Your task to perform on an android device: Clear the shopping cart on target.com. Search for "dell xps" on target.com, select the first entry, add it to the cart, then select checkout. Image 0: 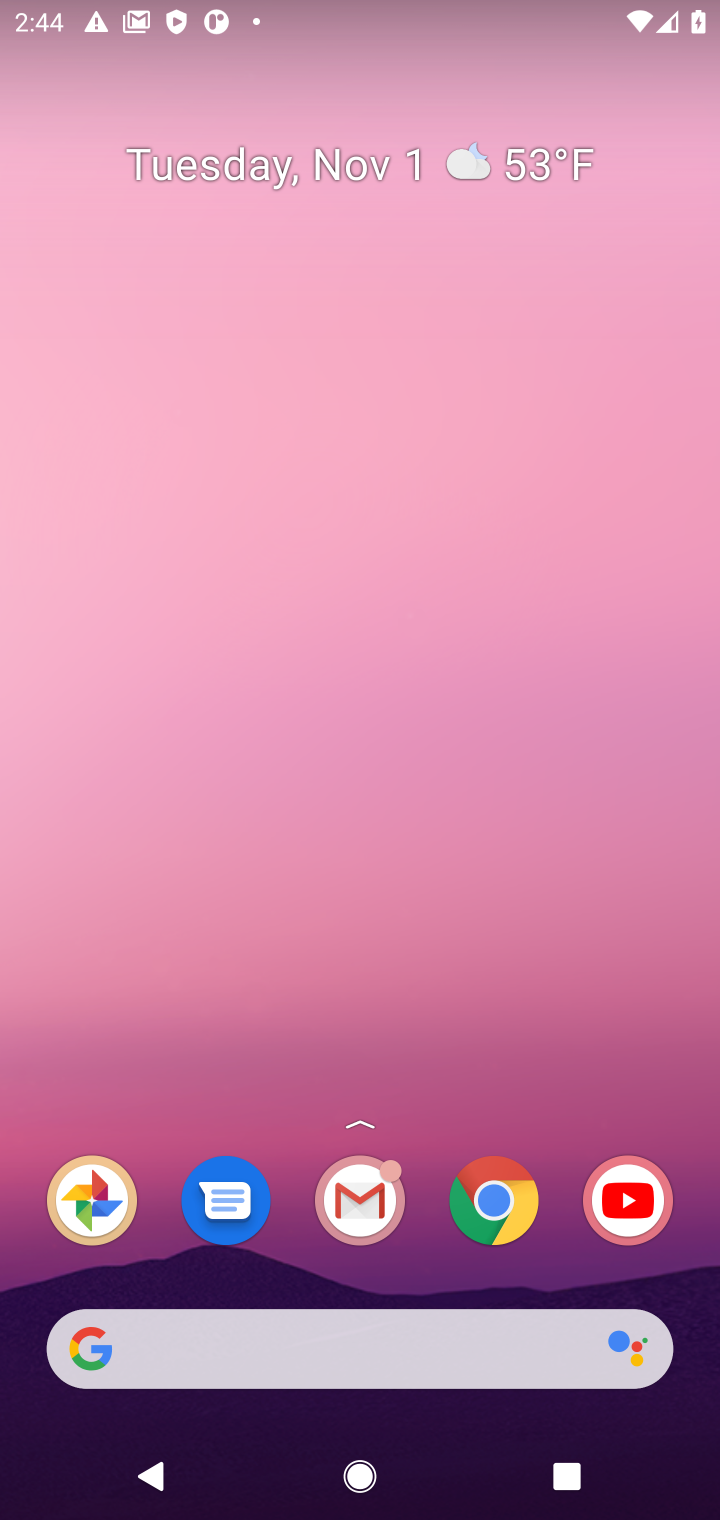
Step 0: click (92, 1339)
Your task to perform on an android device: Clear the shopping cart on target.com. Search for "dell xps" on target.com, select the first entry, add it to the cart, then select checkout. Image 1: 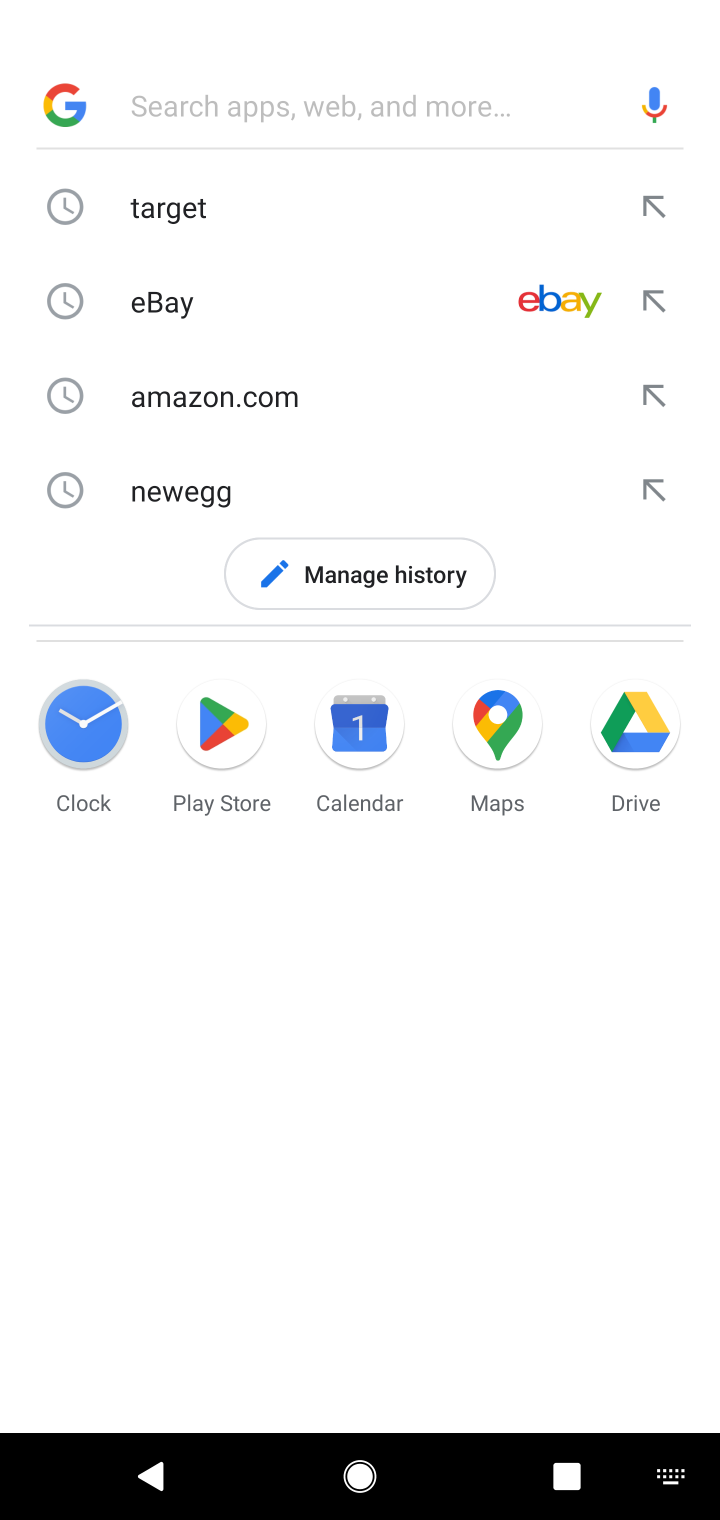
Step 1: press home button
Your task to perform on an android device: Clear the shopping cart on target.com. Search for "dell xps" on target.com, select the first entry, add it to the cart, then select checkout. Image 2: 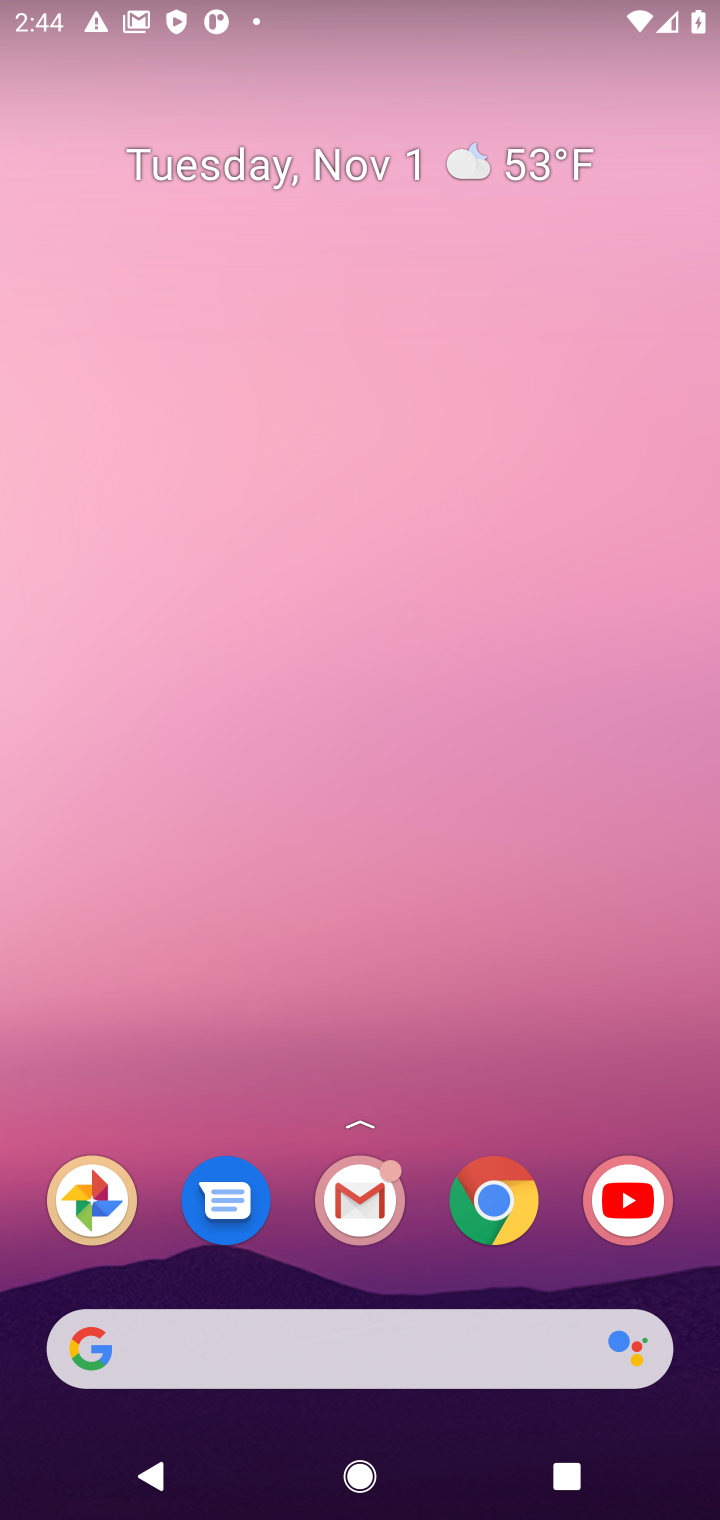
Step 2: click (86, 1349)
Your task to perform on an android device: Clear the shopping cart on target.com. Search for "dell xps" on target.com, select the first entry, add it to the cart, then select checkout. Image 3: 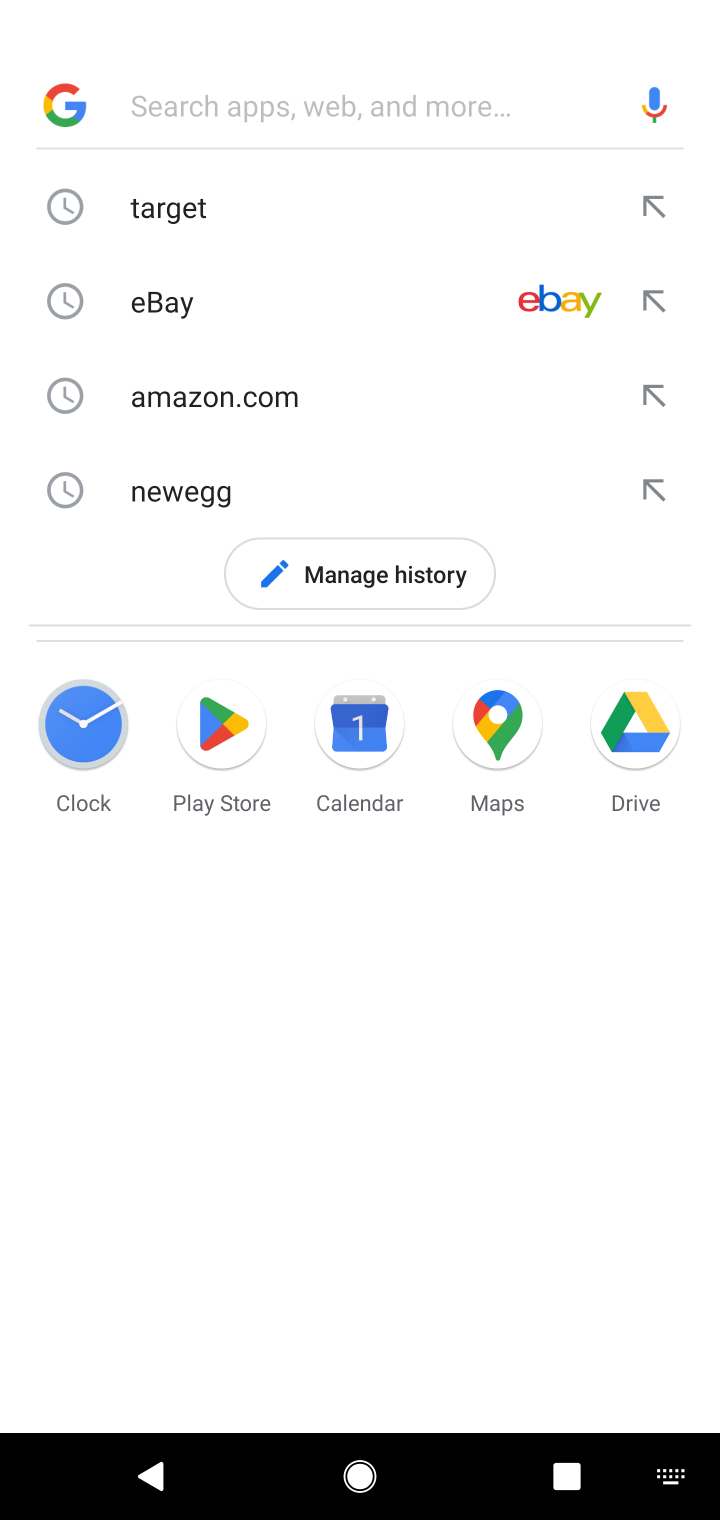
Step 3: click (211, 202)
Your task to perform on an android device: Clear the shopping cart on target.com. Search for "dell xps" on target.com, select the first entry, add it to the cart, then select checkout. Image 4: 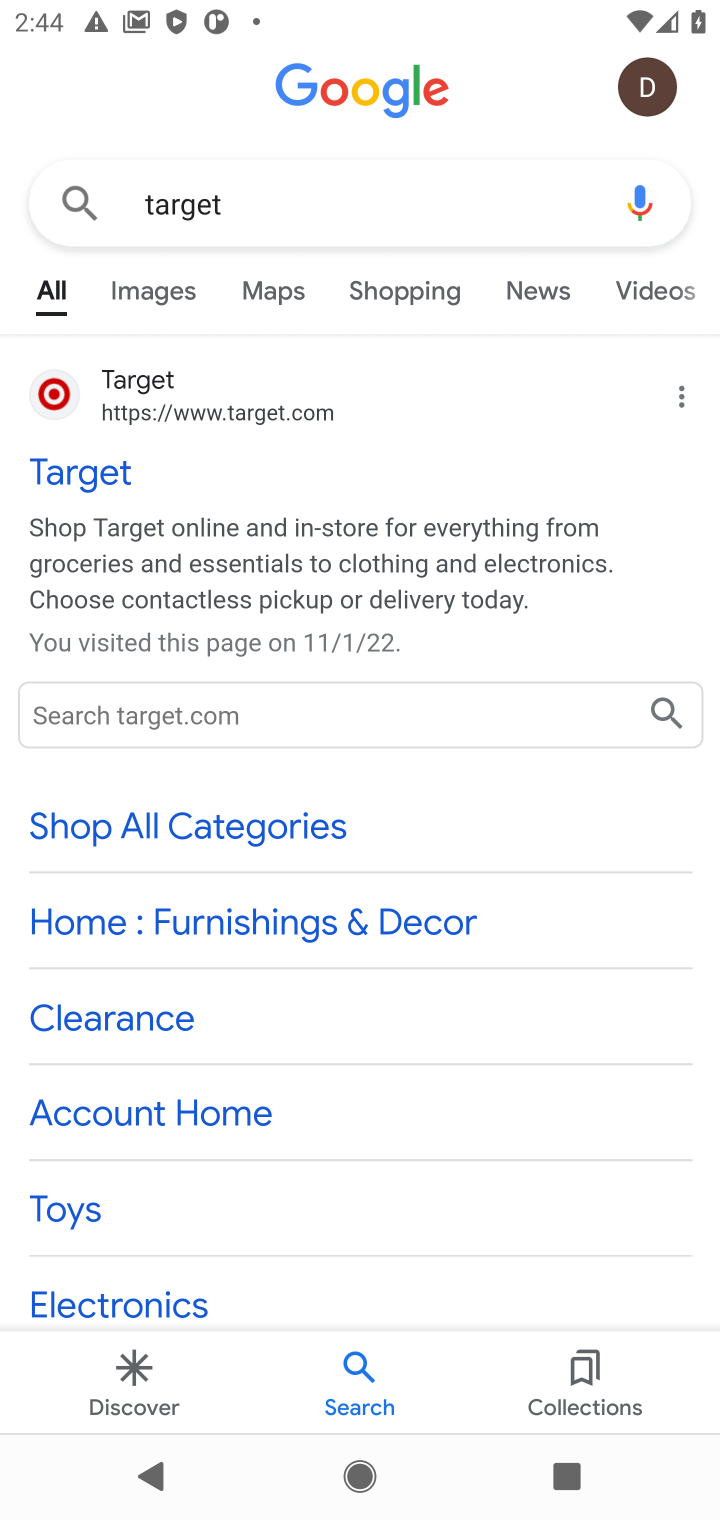
Step 4: click (56, 477)
Your task to perform on an android device: Clear the shopping cart on target.com. Search for "dell xps" on target.com, select the first entry, add it to the cart, then select checkout. Image 5: 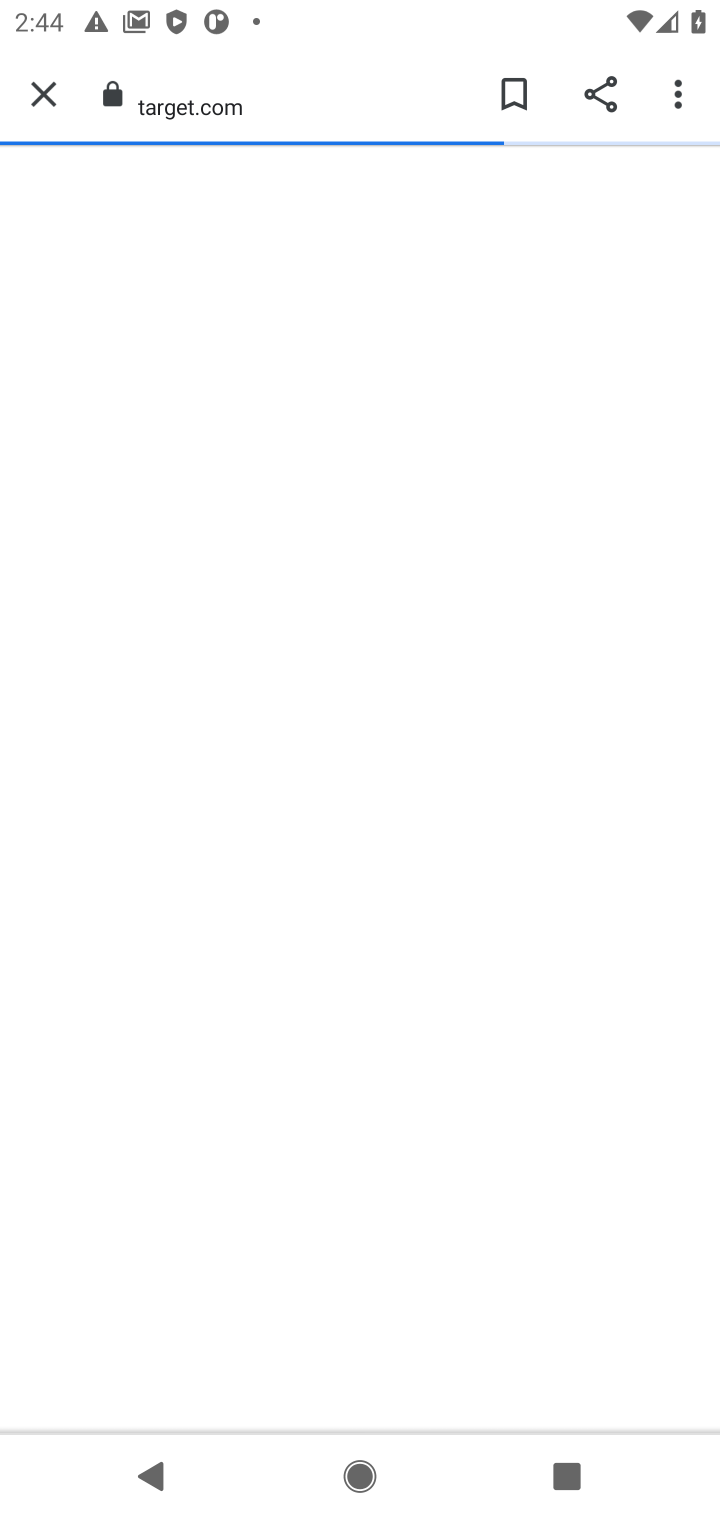
Step 5: click (337, 1040)
Your task to perform on an android device: Clear the shopping cart on target.com. Search for "dell xps" on target.com, select the first entry, add it to the cart, then select checkout. Image 6: 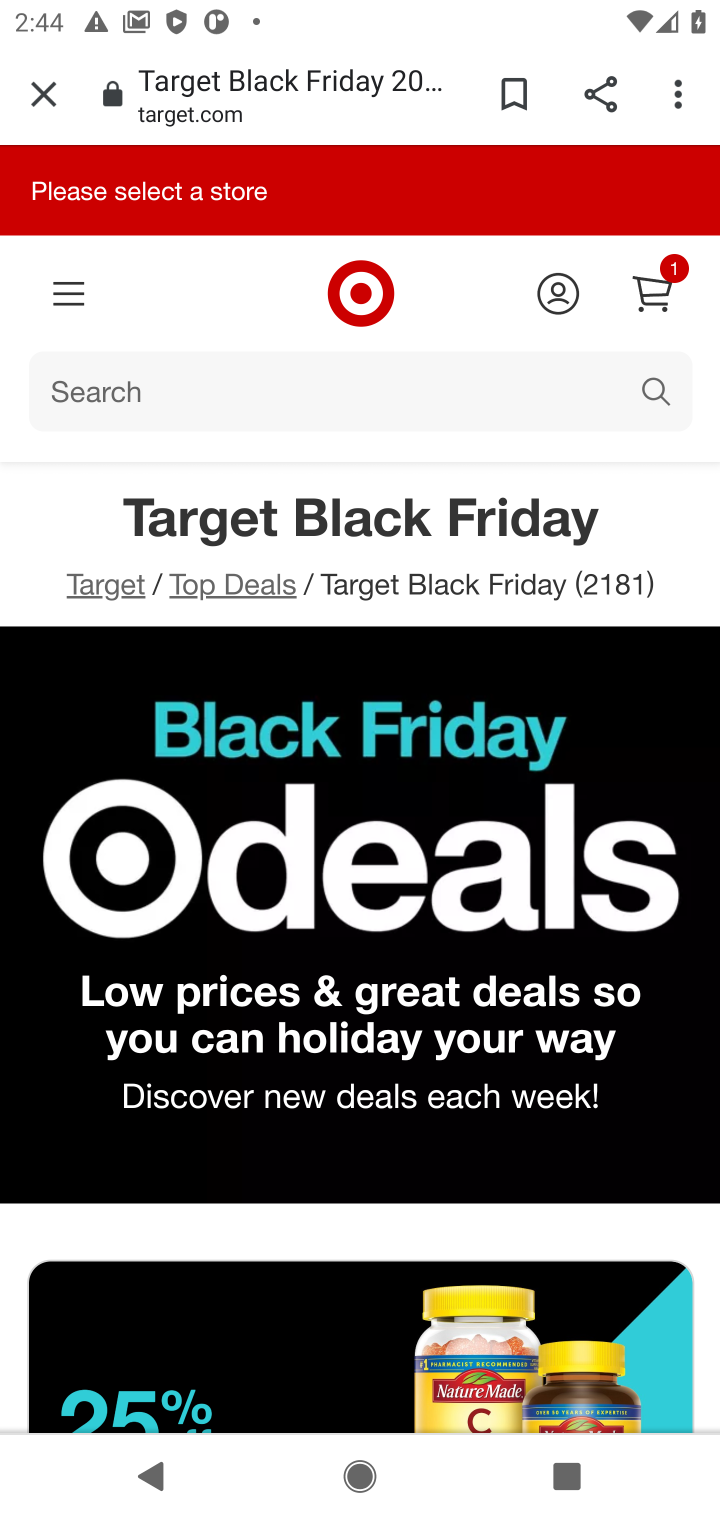
Step 6: click (666, 285)
Your task to perform on an android device: Clear the shopping cart on target.com. Search for "dell xps" on target.com, select the first entry, add it to the cart, then select checkout. Image 7: 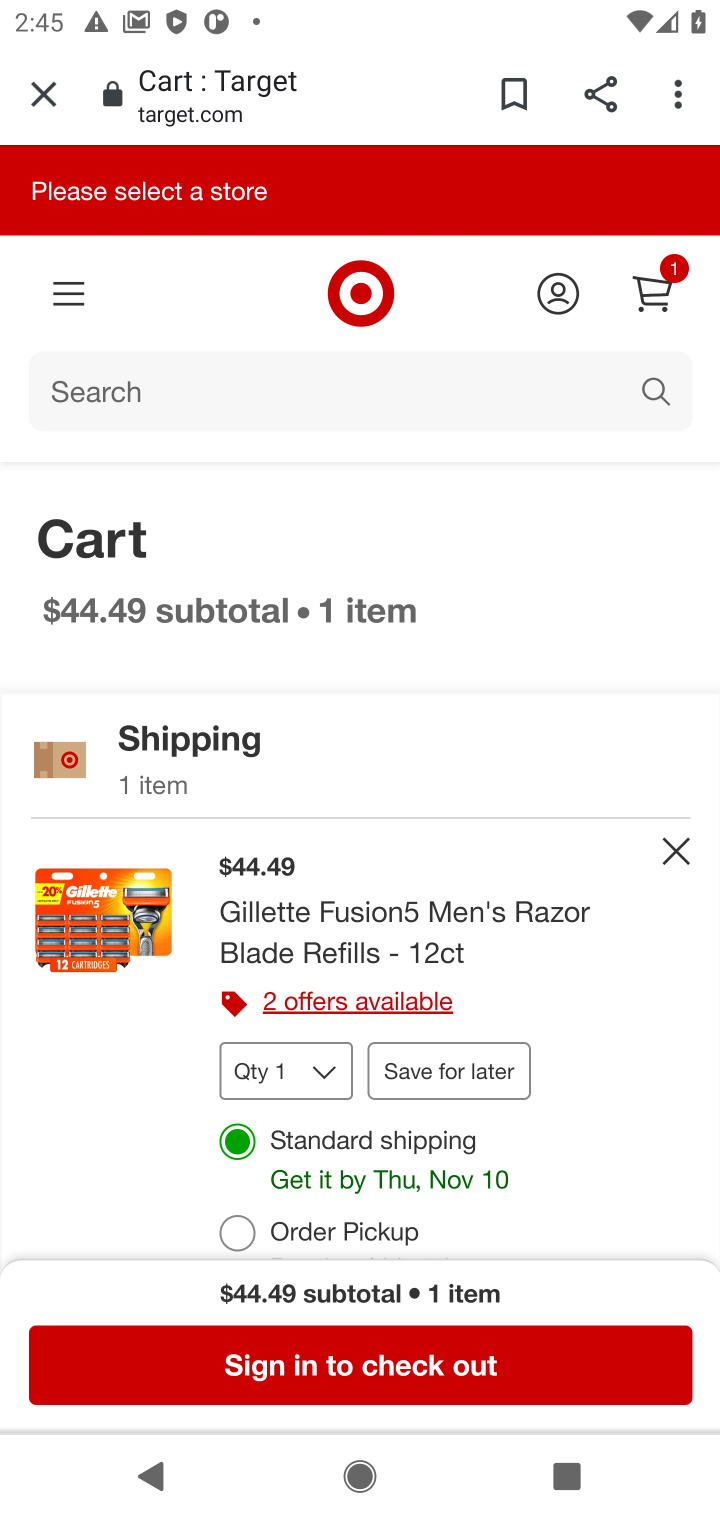
Step 7: drag from (447, 1115) to (498, 530)
Your task to perform on an android device: Clear the shopping cart on target.com. Search for "dell xps" on target.com, select the first entry, add it to the cart, then select checkout. Image 8: 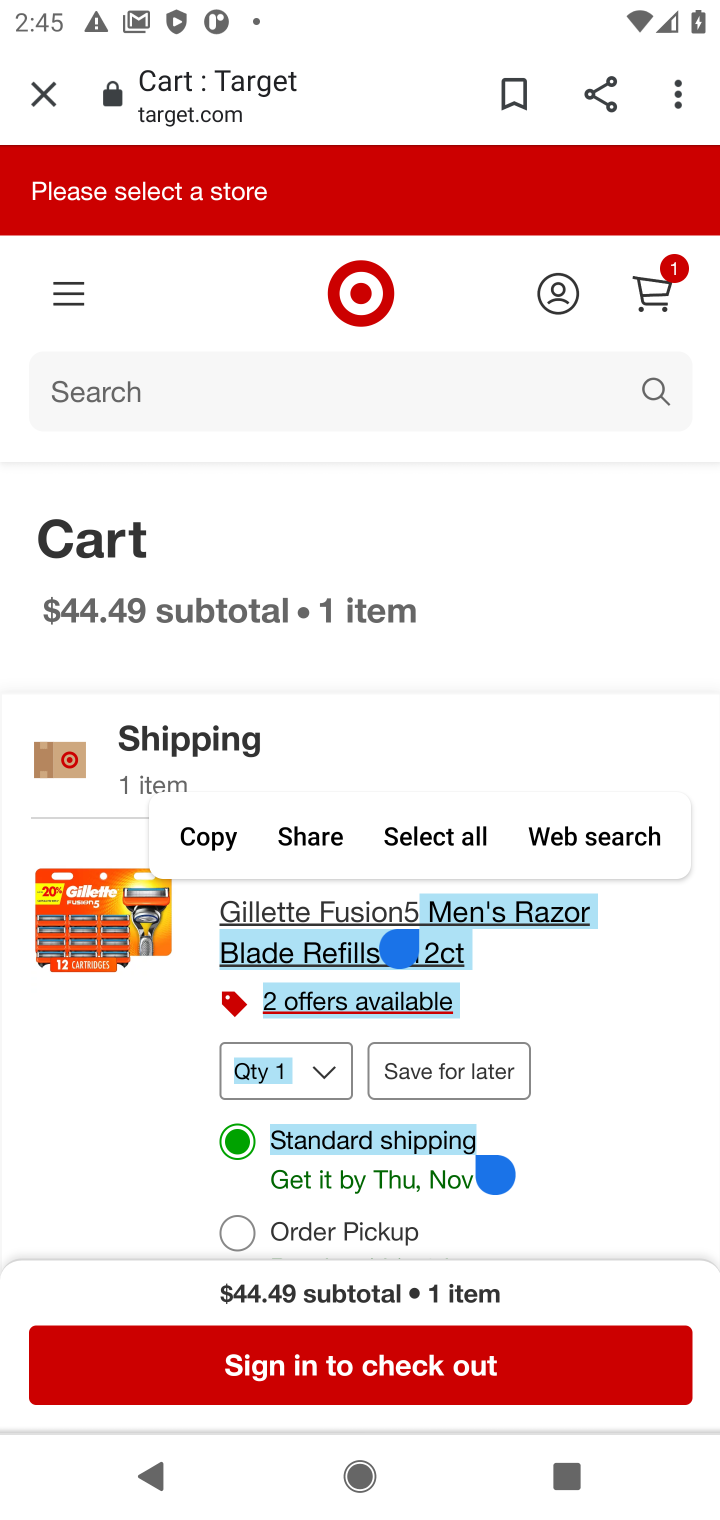
Step 8: click (644, 641)
Your task to perform on an android device: Clear the shopping cart on target.com. Search for "dell xps" on target.com, select the first entry, add it to the cart, then select checkout. Image 9: 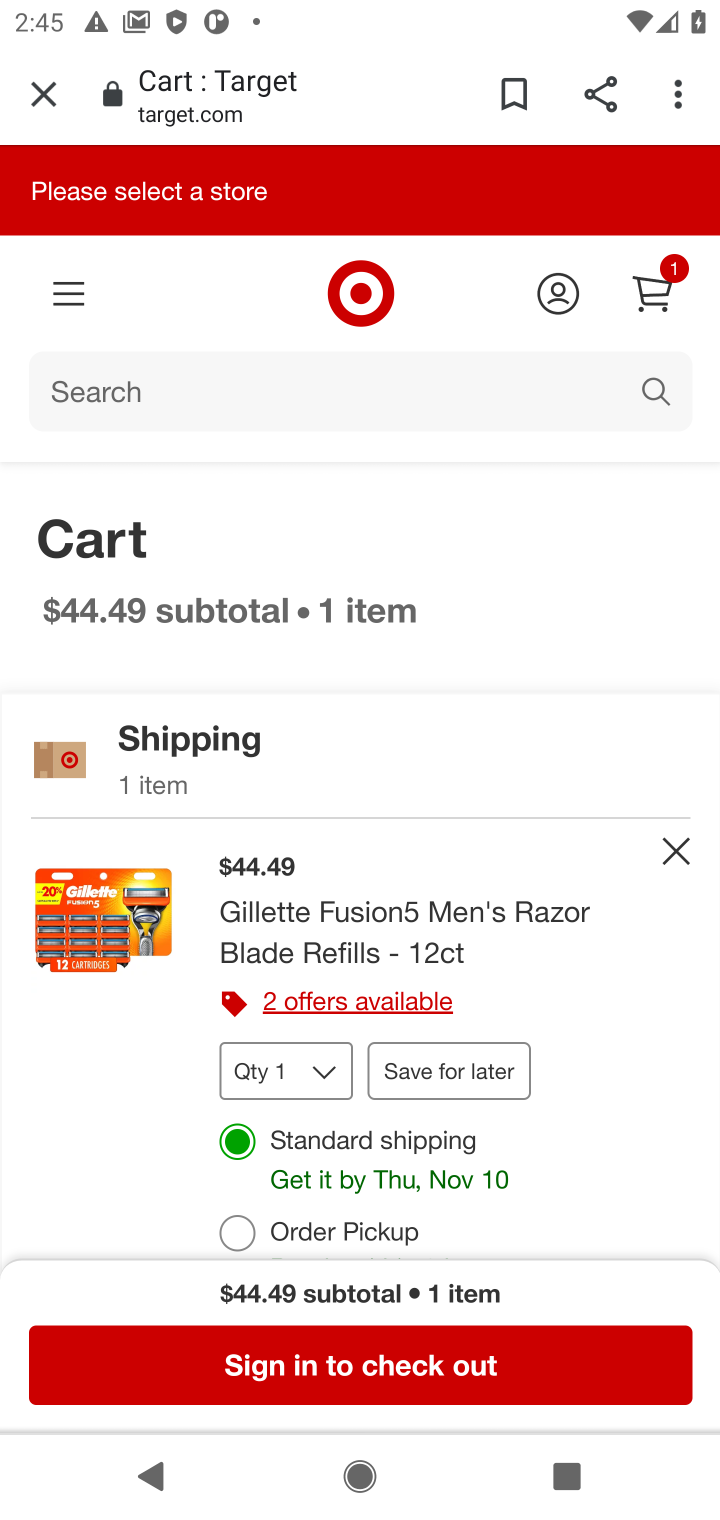
Step 9: click (534, 175)
Your task to perform on an android device: Clear the shopping cart on target.com. Search for "dell xps" on target.com, select the first entry, add it to the cart, then select checkout. Image 10: 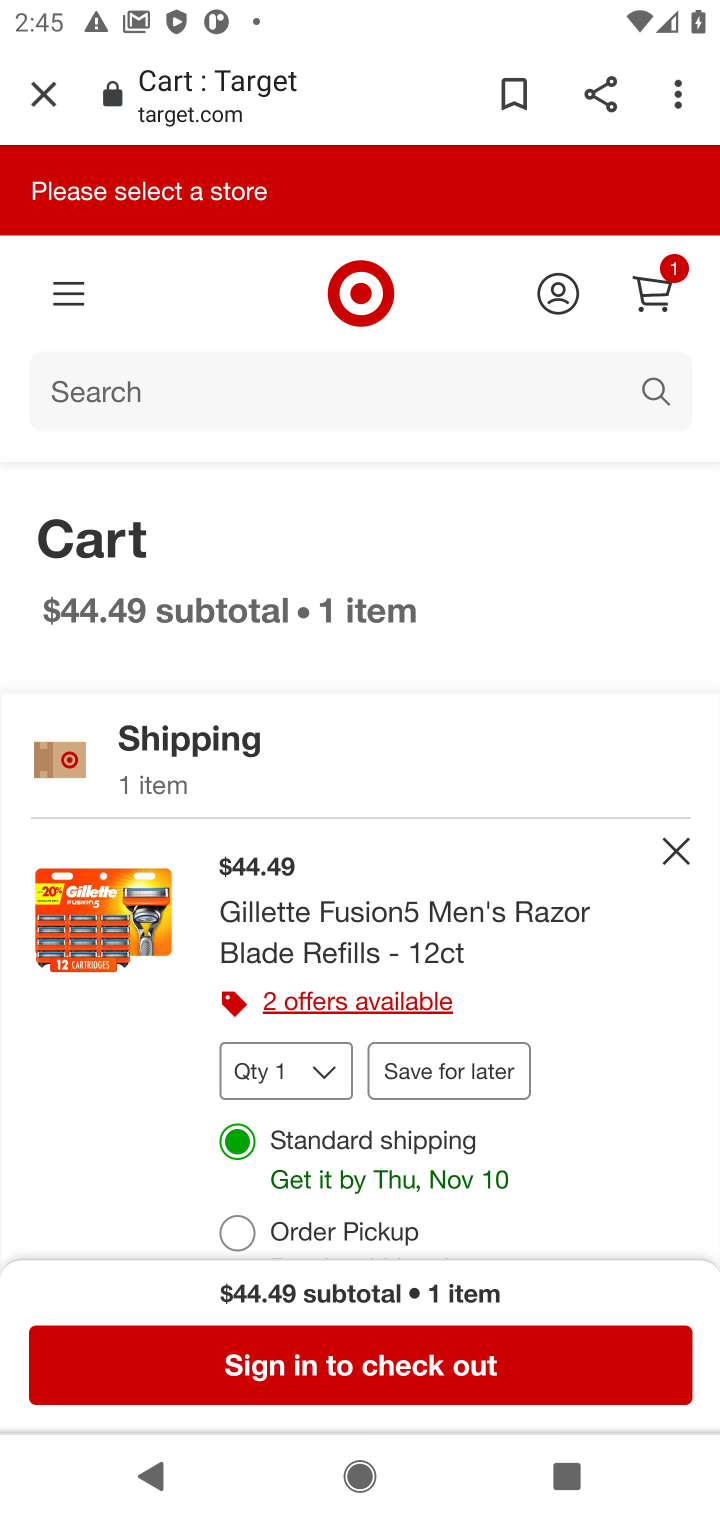
Step 10: drag from (483, 1133) to (524, 588)
Your task to perform on an android device: Clear the shopping cart on target.com. Search for "dell xps" on target.com, select the first entry, add it to the cart, then select checkout. Image 11: 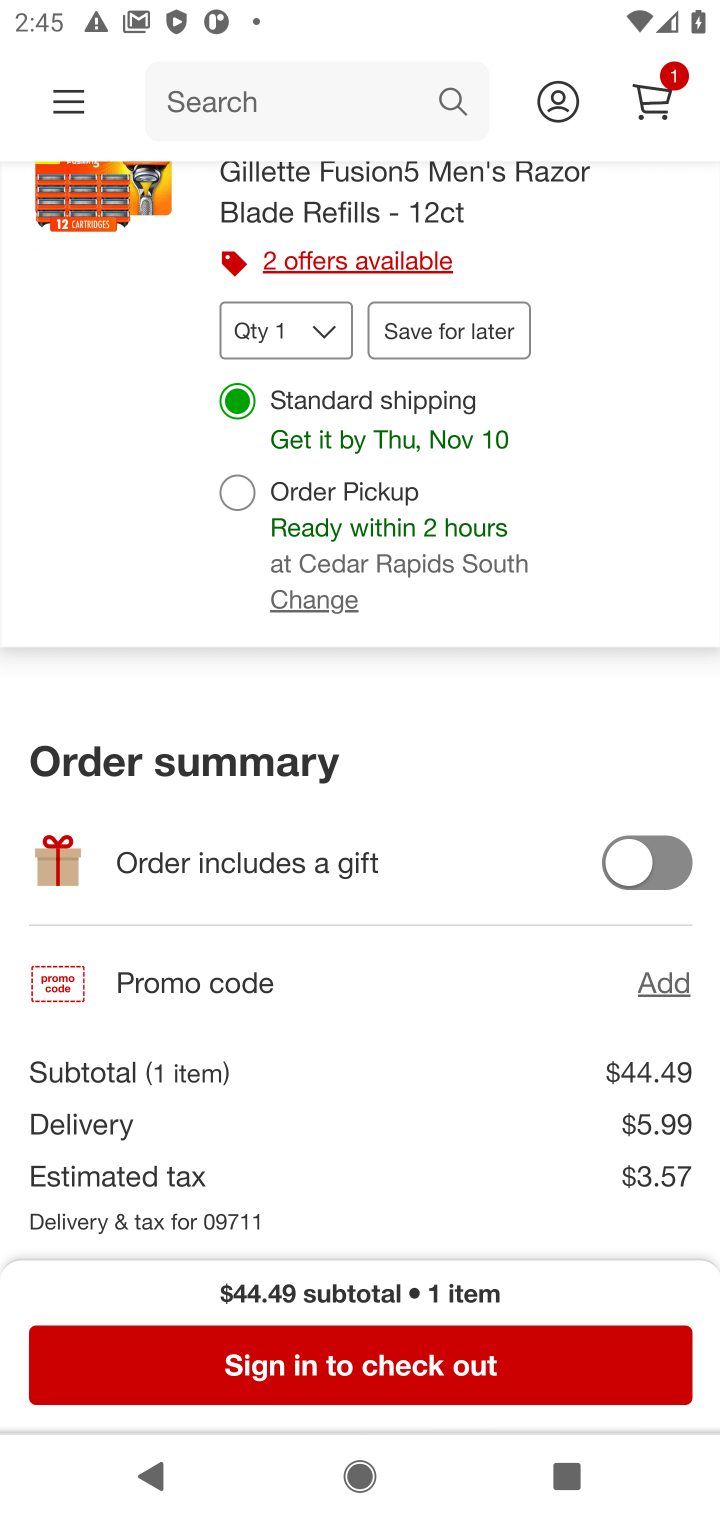
Step 11: click (670, 618)
Your task to perform on an android device: Clear the shopping cart on target.com. Search for "dell xps" on target.com, select the first entry, add it to the cart, then select checkout. Image 12: 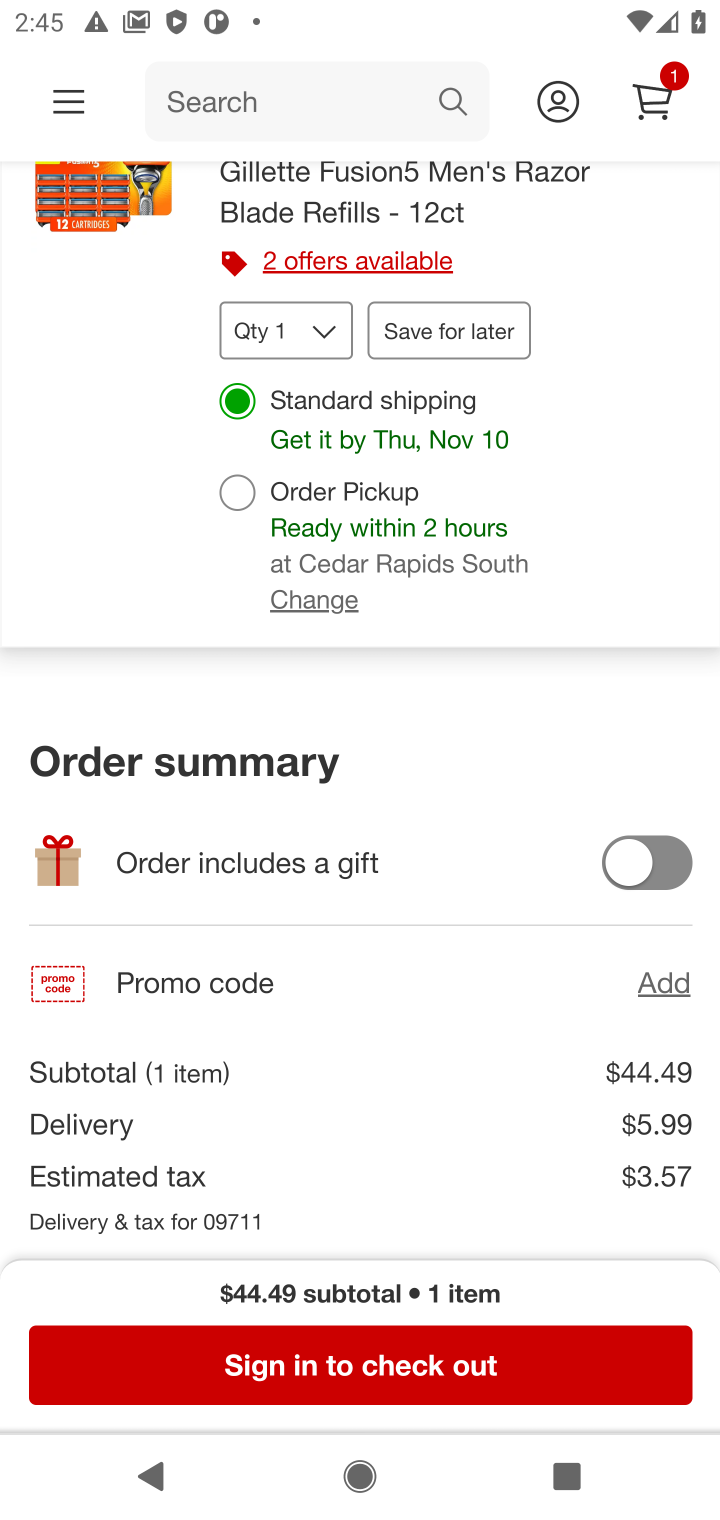
Step 12: drag from (606, 470) to (559, 662)
Your task to perform on an android device: Clear the shopping cart on target.com. Search for "dell xps" on target.com, select the first entry, add it to the cart, then select checkout. Image 13: 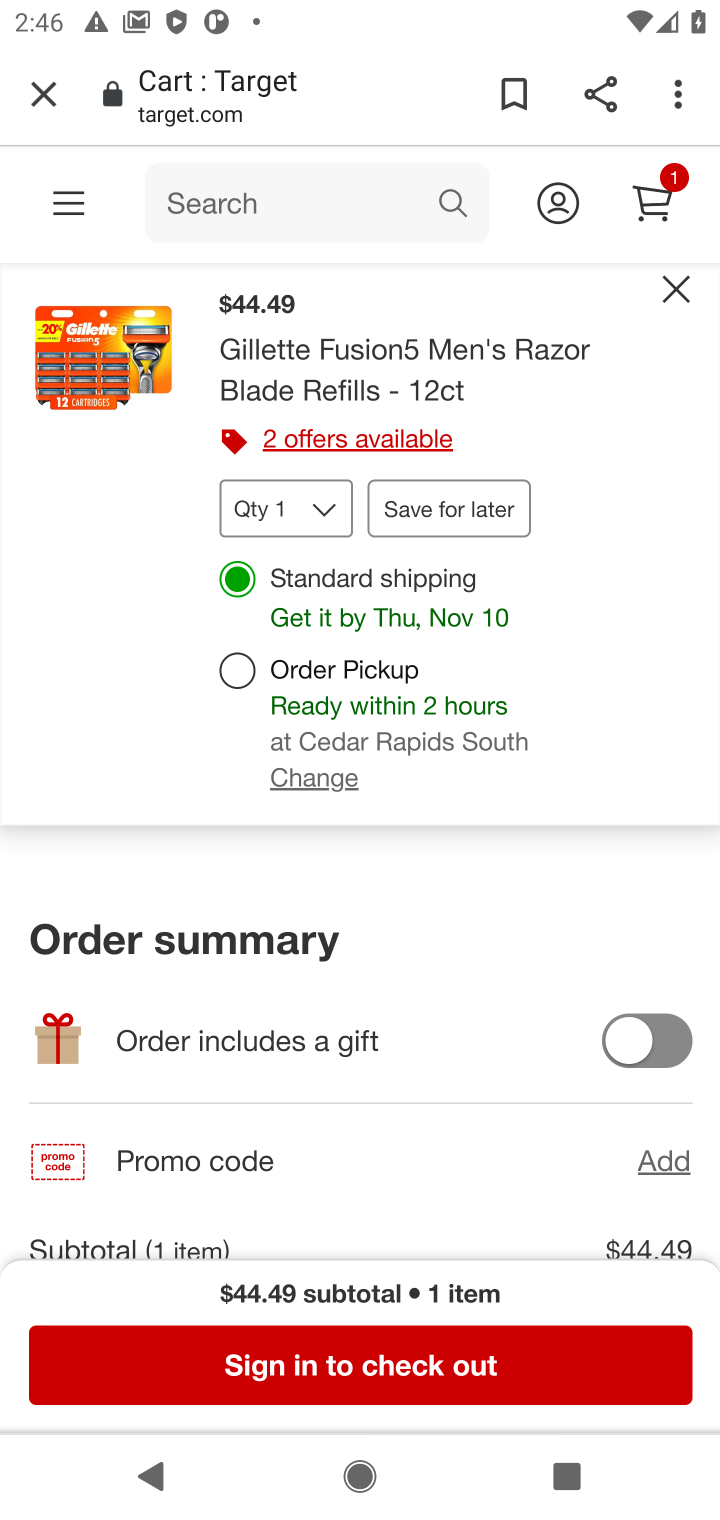
Step 13: click (585, 690)
Your task to perform on an android device: Clear the shopping cart on target.com. Search for "dell xps" on target.com, select the first entry, add it to the cart, then select checkout. Image 14: 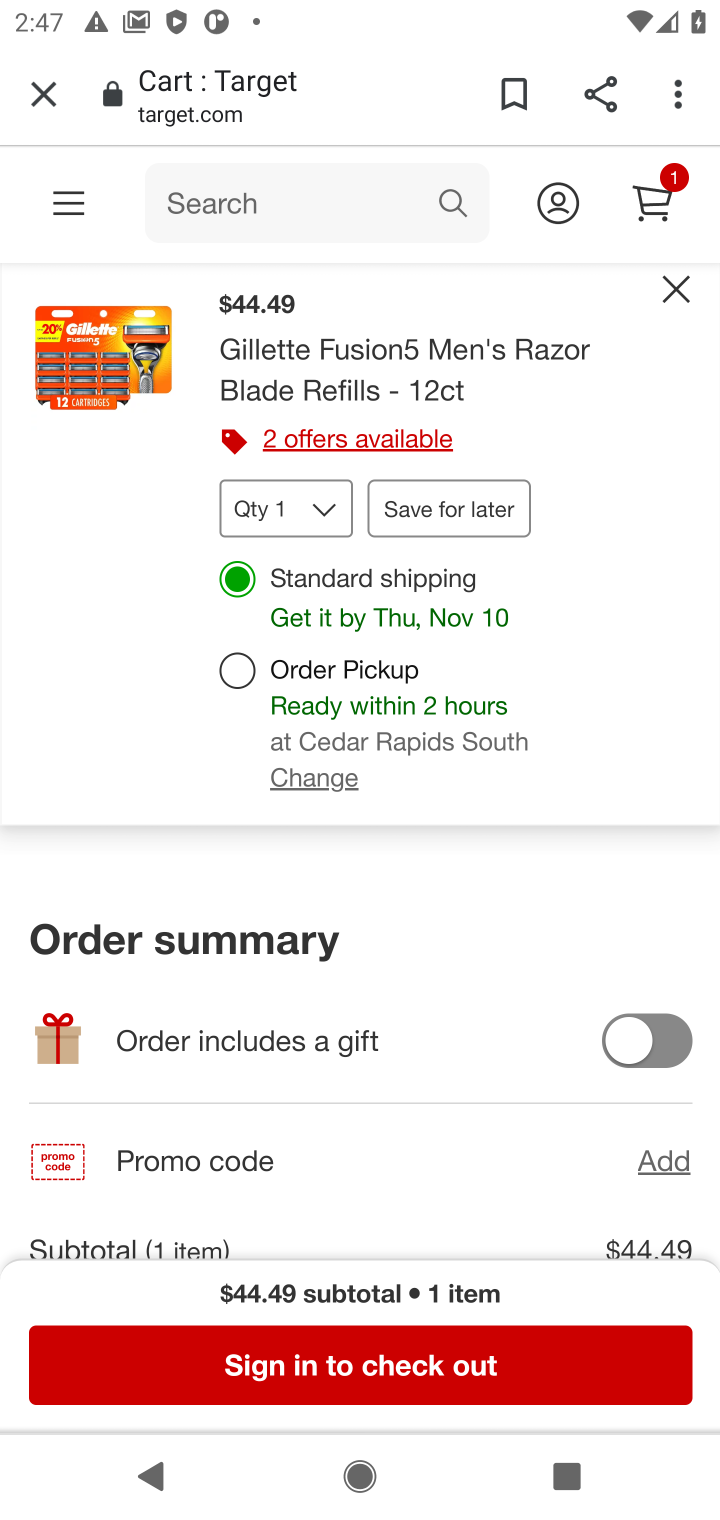
Step 14: click (674, 286)
Your task to perform on an android device: Clear the shopping cart on target.com. Search for "dell xps" on target.com, select the first entry, add it to the cart, then select checkout. Image 15: 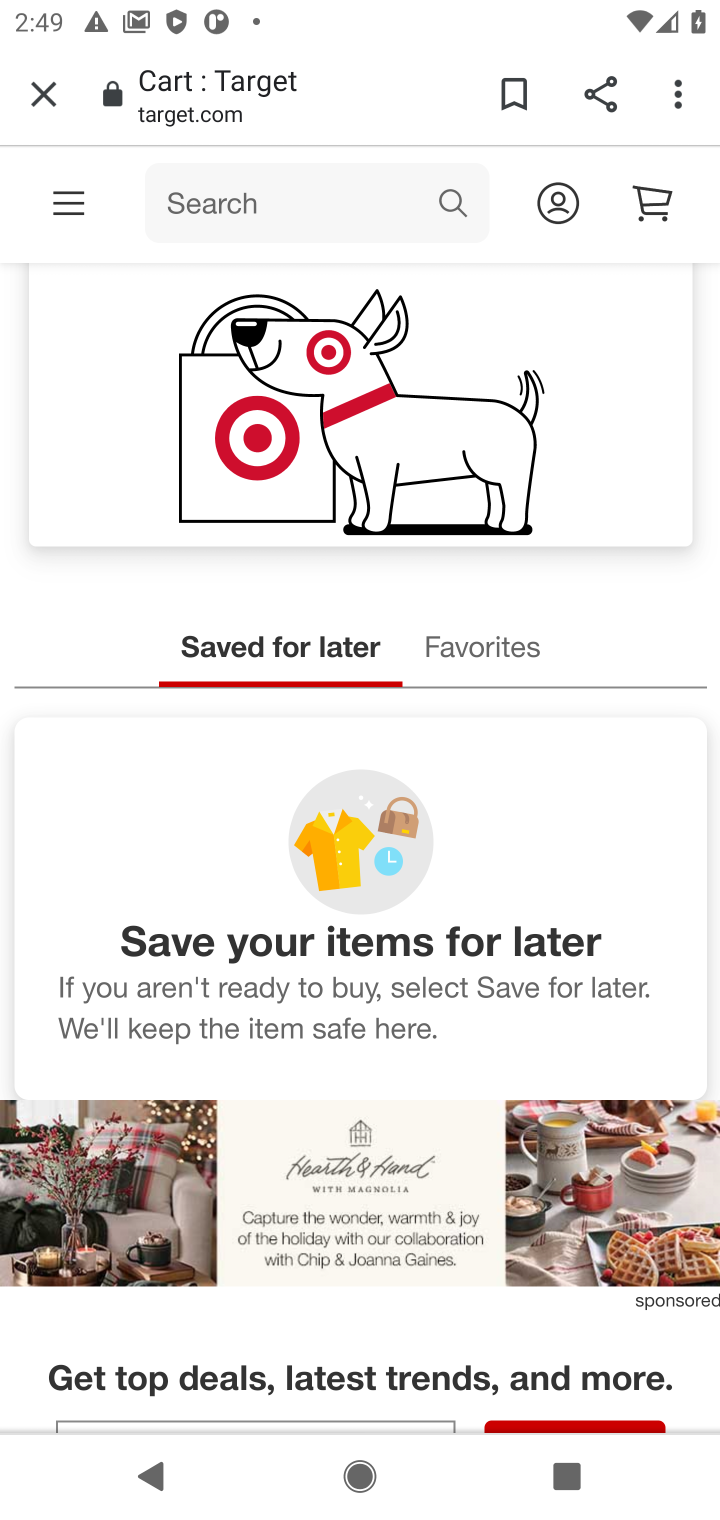
Step 15: click (454, 205)
Your task to perform on an android device: Clear the shopping cart on target.com. Search for "dell xps" on target.com, select the first entry, add it to the cart, then select checkout. Image 16: 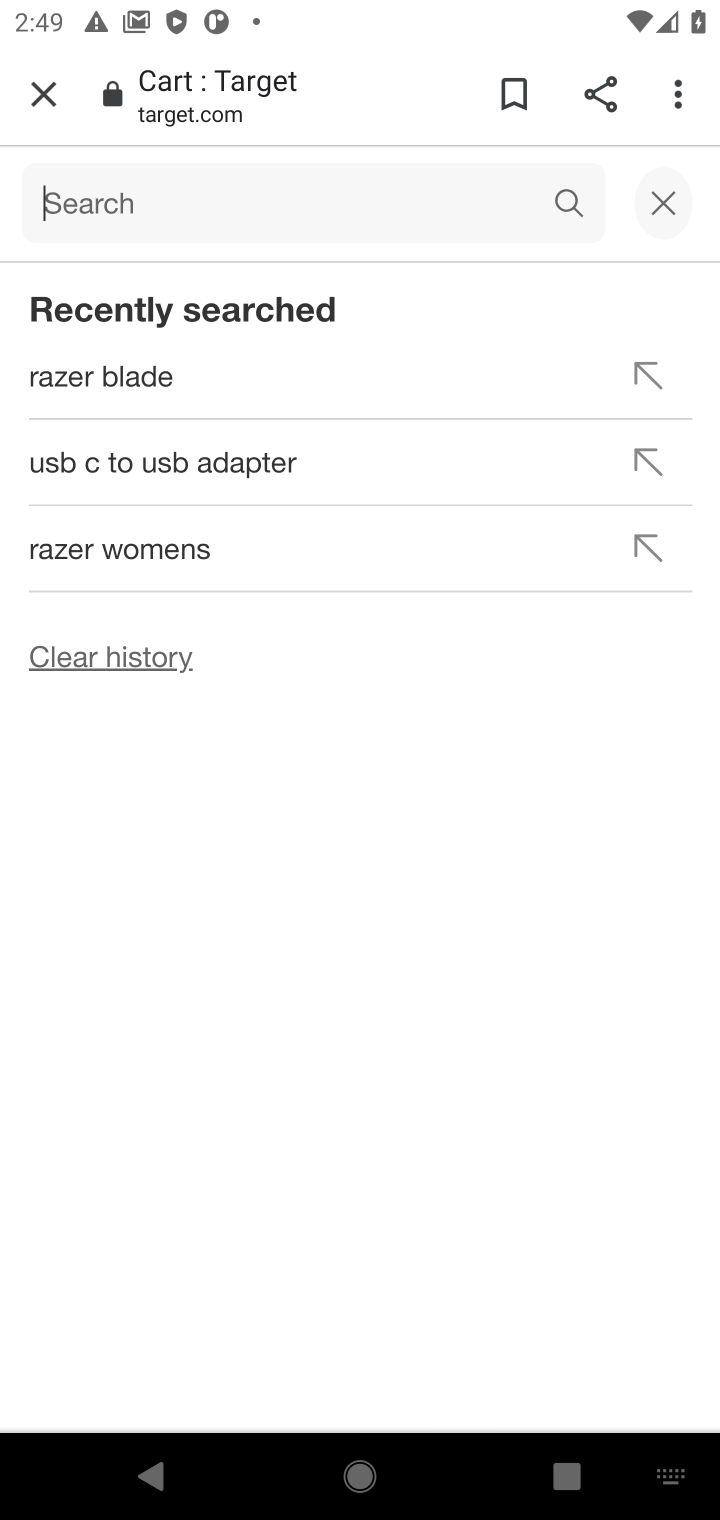
Step 16: type "dell xps"
Your task to perform on an android device: Clear the shopping cart on target.com. Search for "dell xps" on target.com, select the first entry, add it to the cart, then select checkout. Image 17: 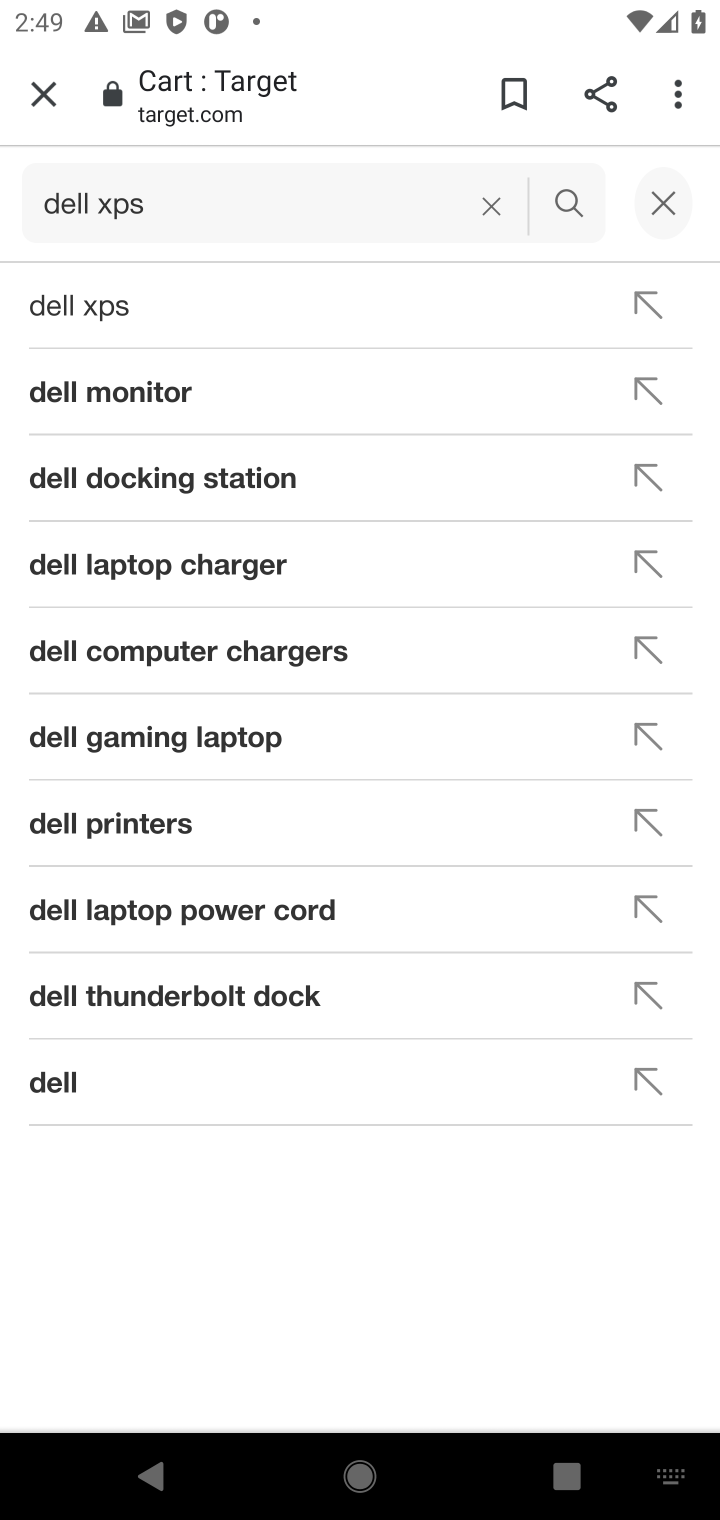
Step 17: click (108, 299)
Your task to perform on an android device: Clear the shopping cart on target.com. Search for "dell xps" on target.com, select the first entry, add it to the cart, then select checkout. Image 18: 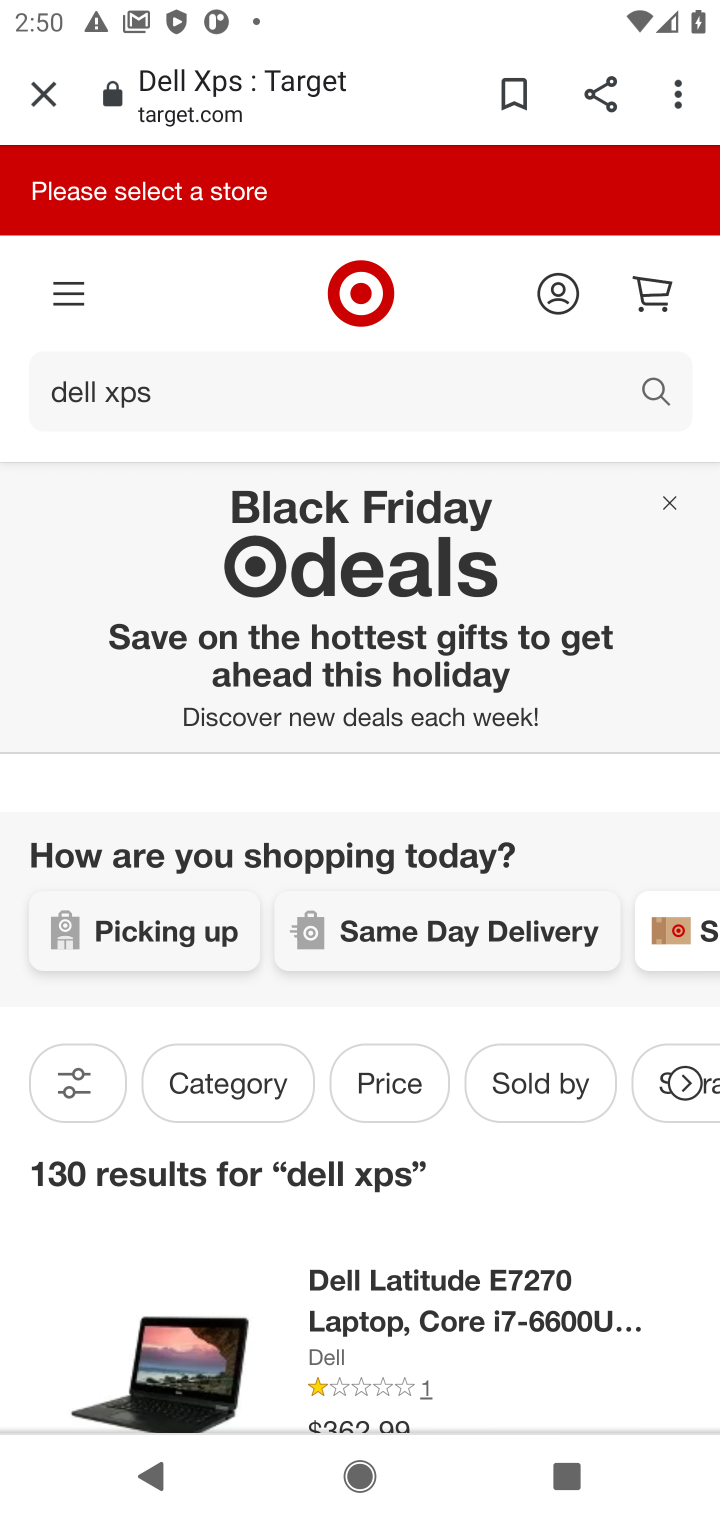
Step 18: drag from (484, 1326) to (429, 575)
Your task to perform on an android device: Clear the shopping cart on target.com. Search for "dell xps" on target.com, select the first entry, add it to the cart, then select checkout. Image 19: 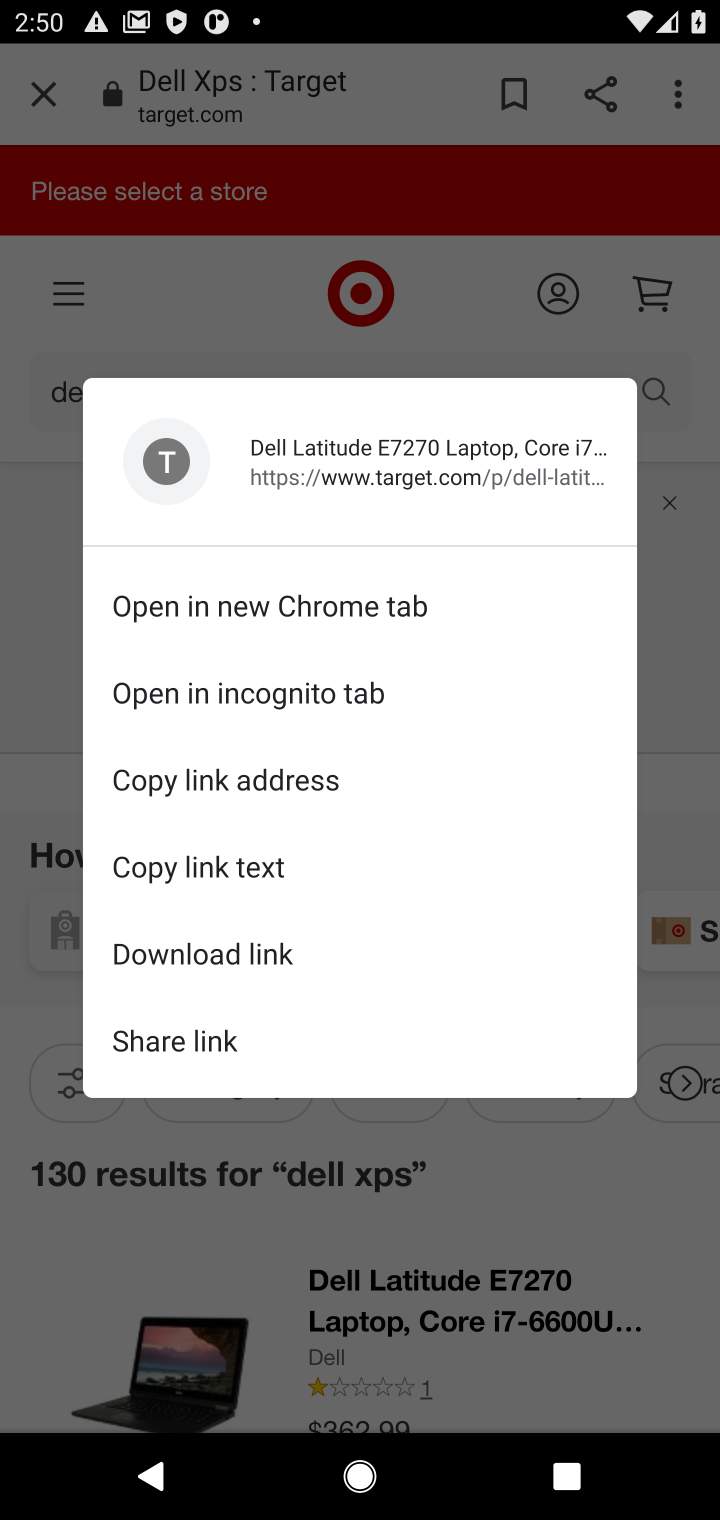
Step 19: click (682, 777)
Your task to perform on an android device: Clear the shopping cart on target.com. Search for "dell xps" on target.com, select the first entry, add it to the cart, then select checkout. Image 20: 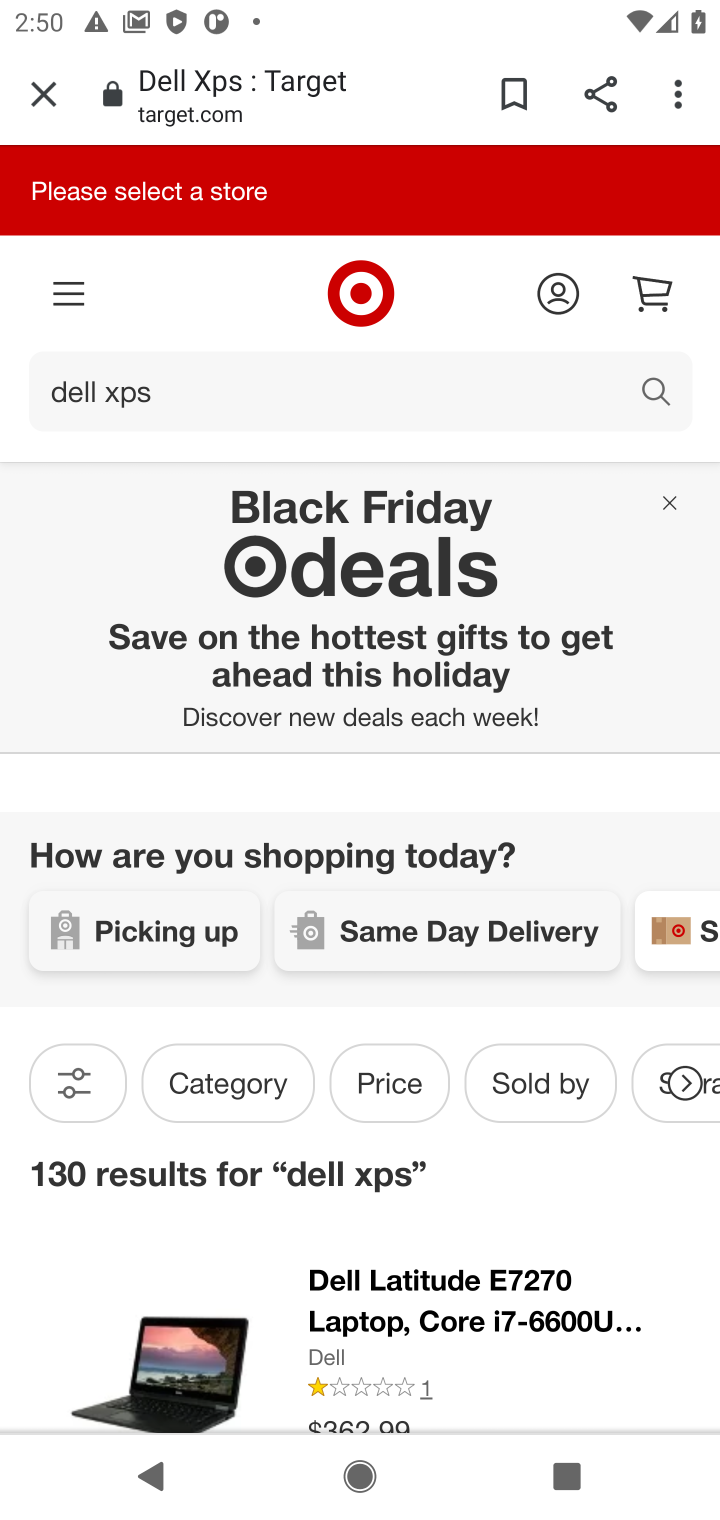
Step 20: drag from (275, 1188) to (224, 435)
Your task to perform on an android device: Clear the shopping cart on target.com. Search for "dell xps" on target.com, select the first entry, add it to the cart, then select checkout. Image 21: 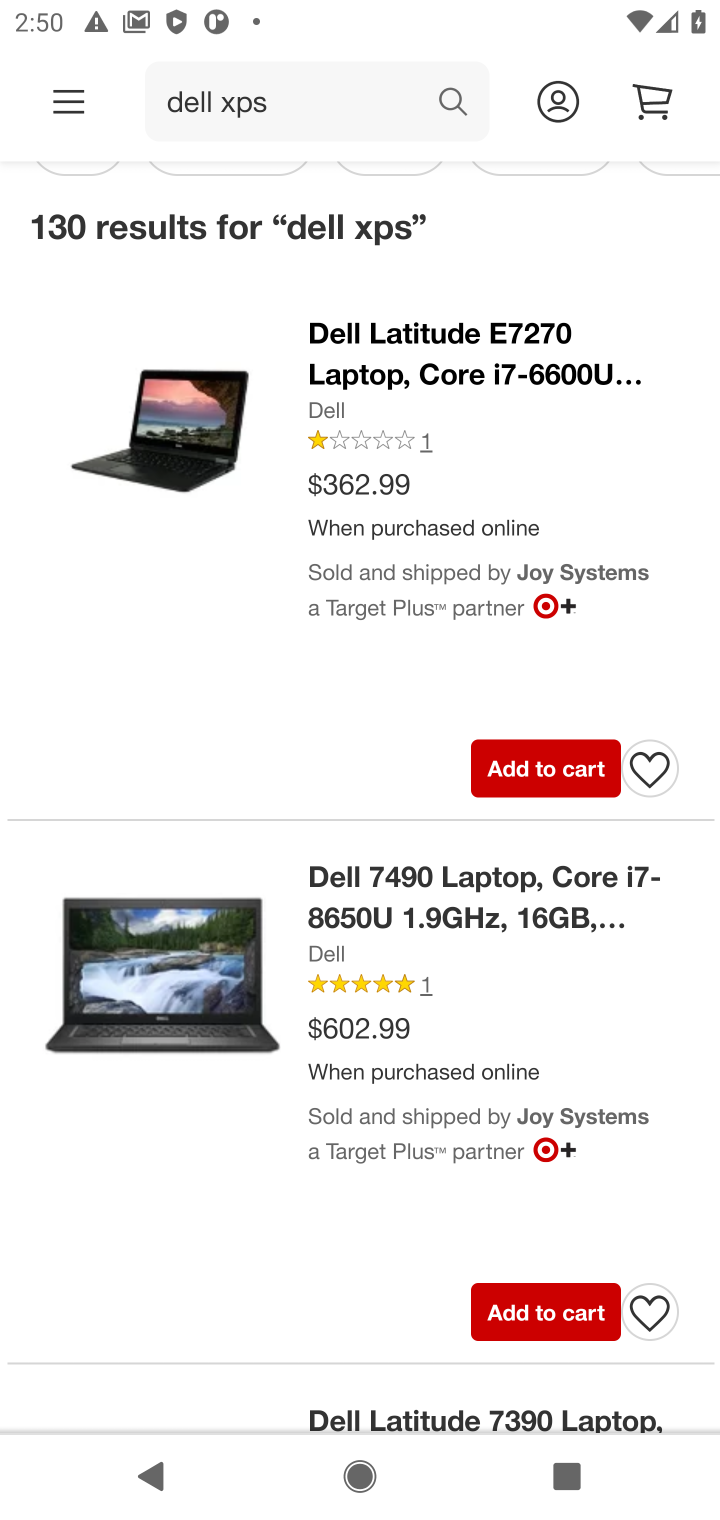
Step 21: click (546, 767)
Your task to perform on an android device: Clear the shopping cart on target.com. Search for "dell xps" on target.com, select the first entry, add it to the cart, then select checkout. Image 22: 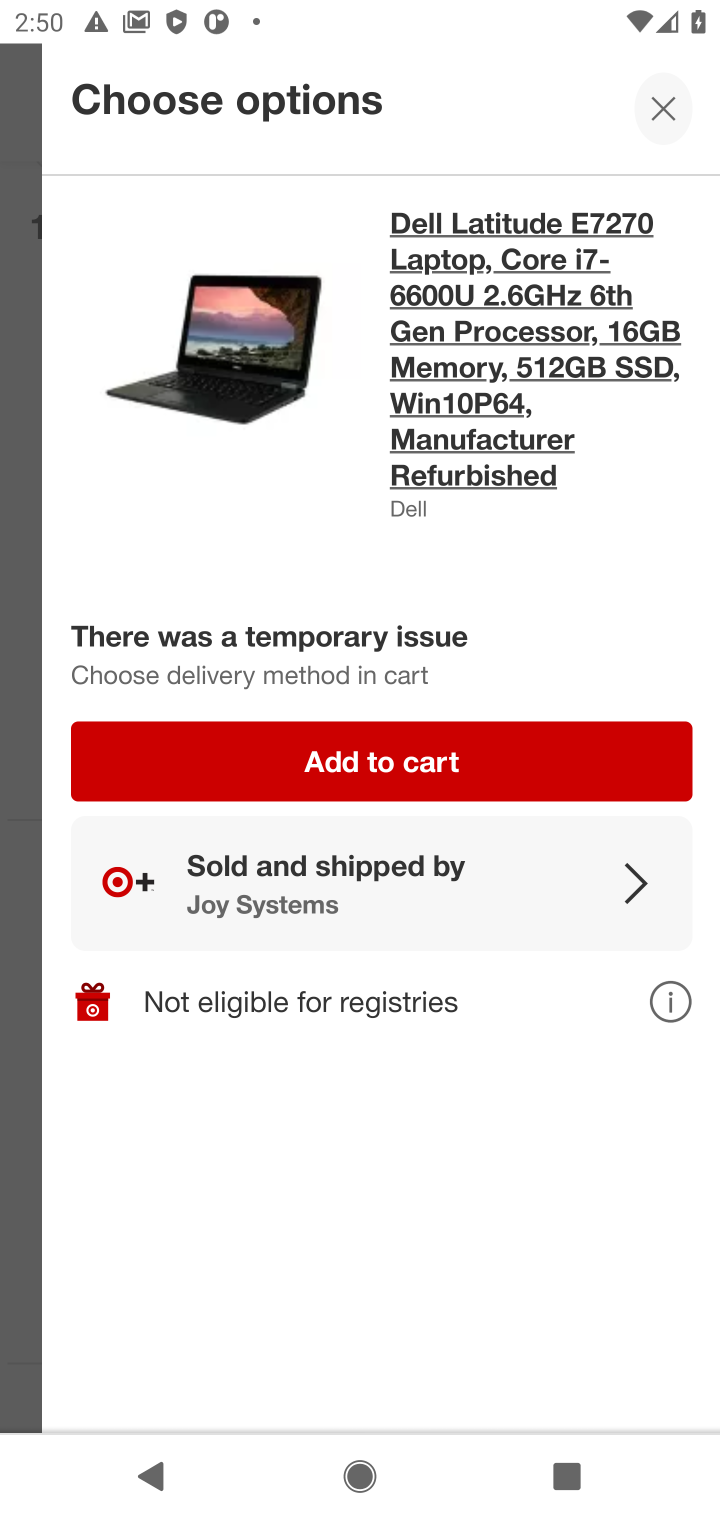
Step 22: click (391, 777)
Your task to perform on an android device: Clear the shopping cart on target.com. Search for "dell xps" on target.com, select the first entry, add it to the cart, then select checkout. Image 23: 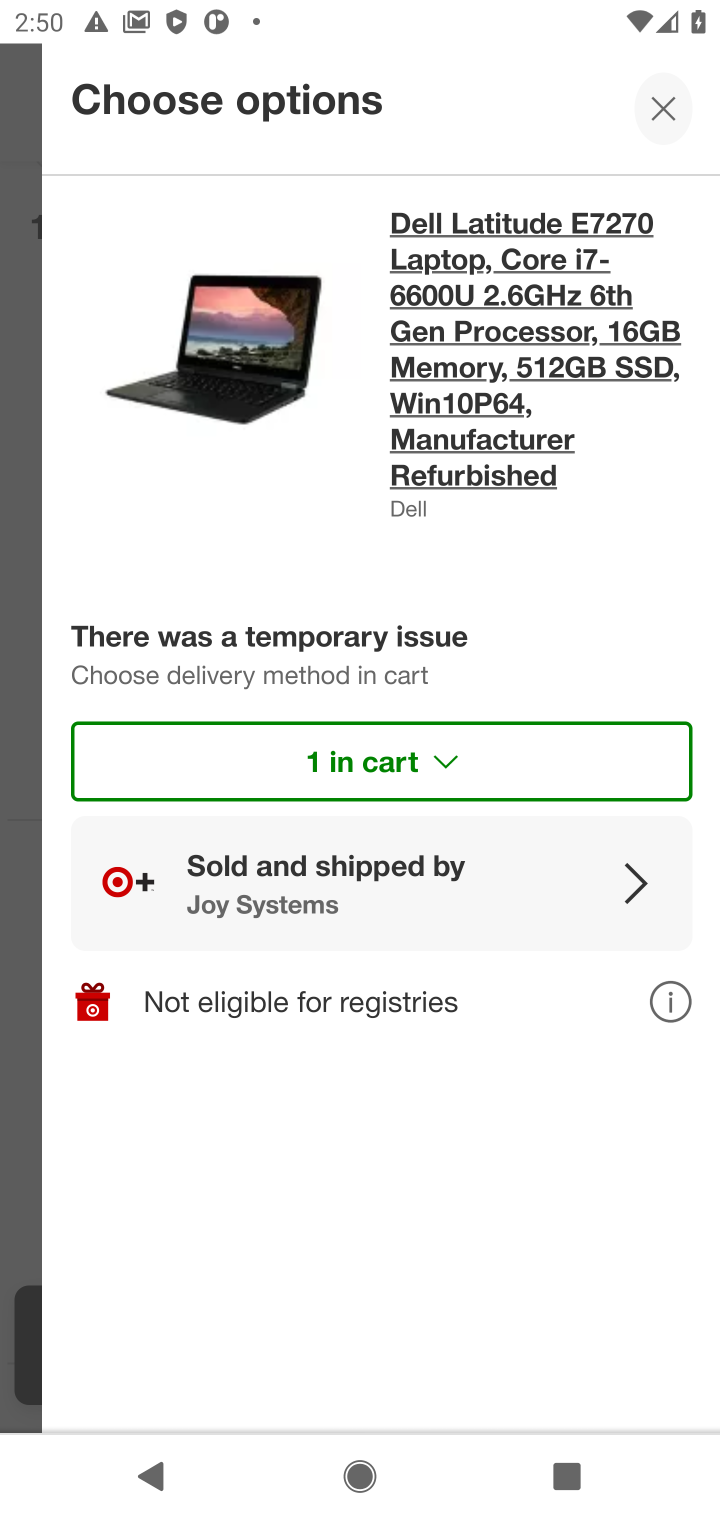
Step 23: task complete